Your task to perform on an android device: Go to CNN.com Image 0: 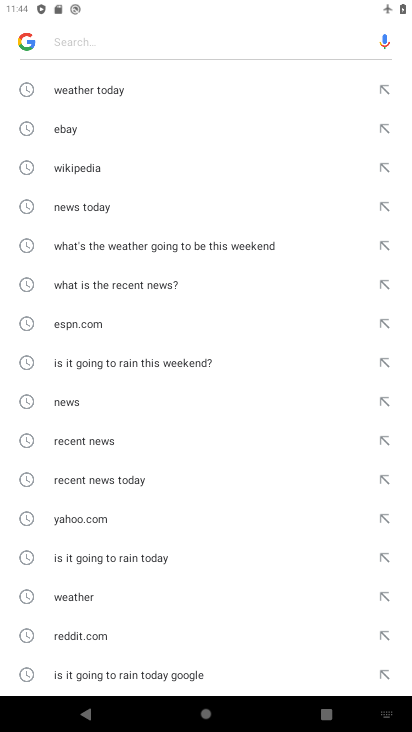
Step 0: press home button
Your task to perform on an android device: Go to CNN.com Image 1: 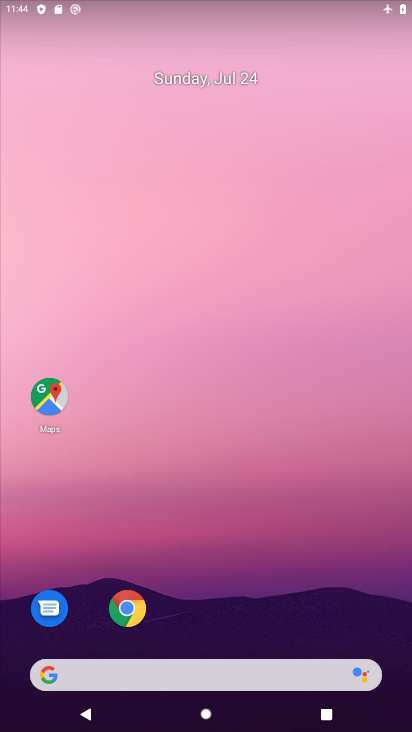
Step 1: click (146, 613)
Your task to perform on an android device: Go to CNN.com Image 2: 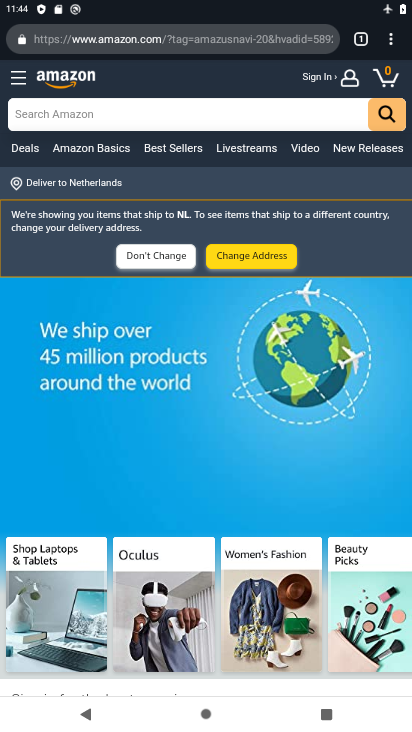
Step 2: click (363, 48)
Your task to perform on an android device: Go to CNN.com Image 3: 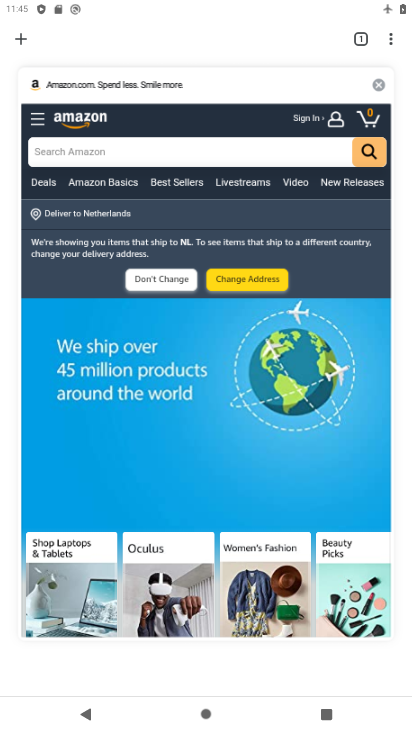
Step 3: click (21, 38)
Your task to perform on an android device: Go to CNN.com Image 4: 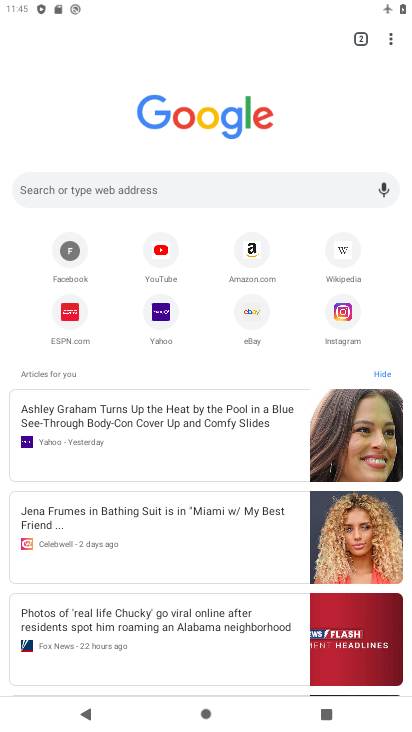
Step 4: click (201, 197)
Your task to perform on an android device: Go to CNN.com Image 5: 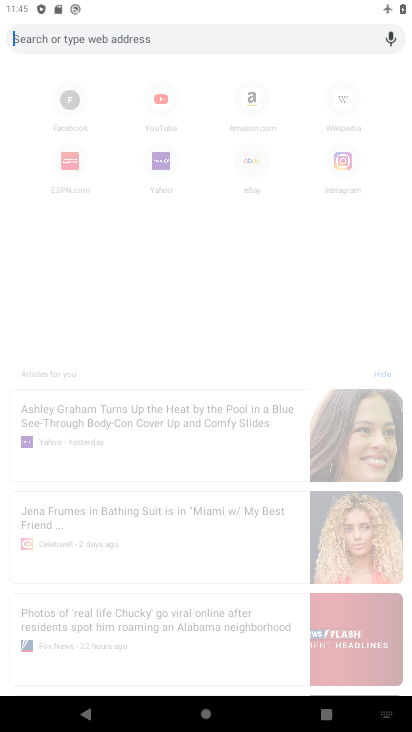
Step 5: type "CNN.com"
Your task to perform on an android device: Go to CNN.com Image 6: 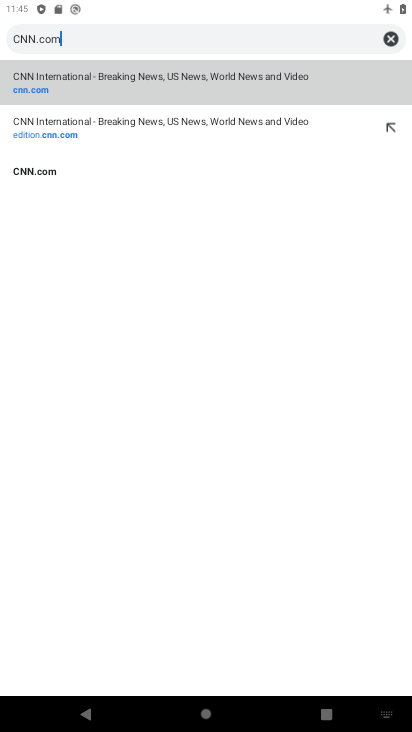
Step 6: type ""
Your task to perform on an android device: Go to CNN.com Image 7: 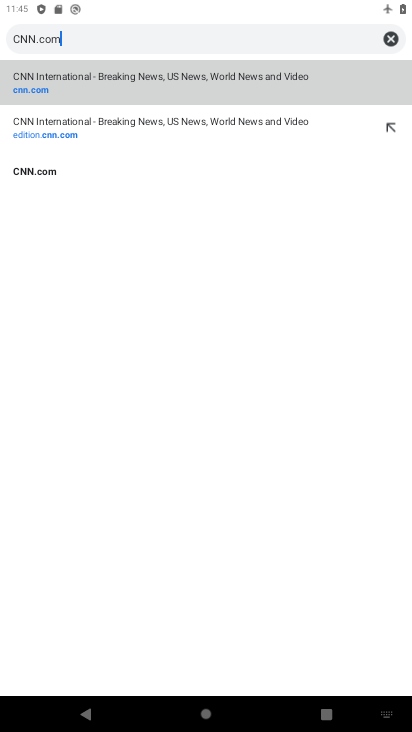
Step 7: click (83, 165)
Your task to perform on an android device: Go to CNN.com Image 8: 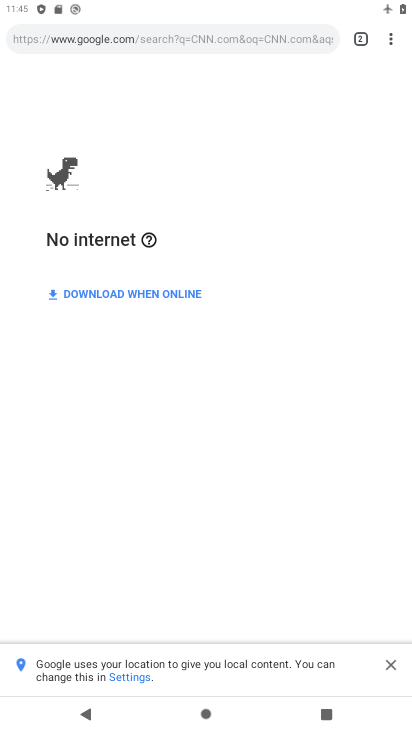
Step 8: task complete